Your task to perform on an android device: delete the emails in spam in the gmail app Image 0: 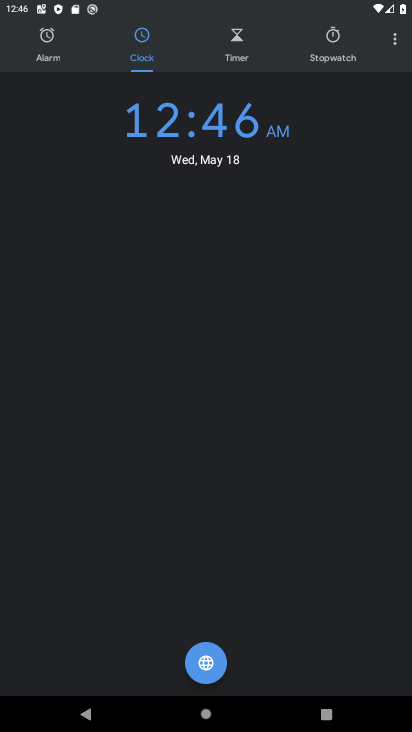
Step 0: press home button
Your task to perform on an android device: delete the emails in spam in the gmail app Image 1: 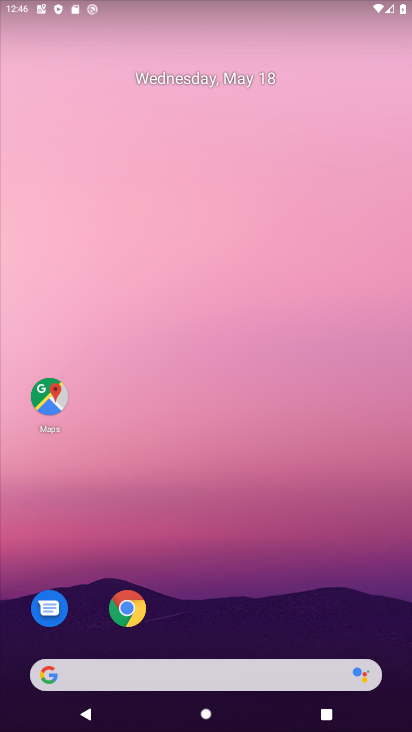
Step 1: drag from (163, 706) to (242, 190)
Your task to perform on an android device: delete the emails in spam in the gmail app Image 2: 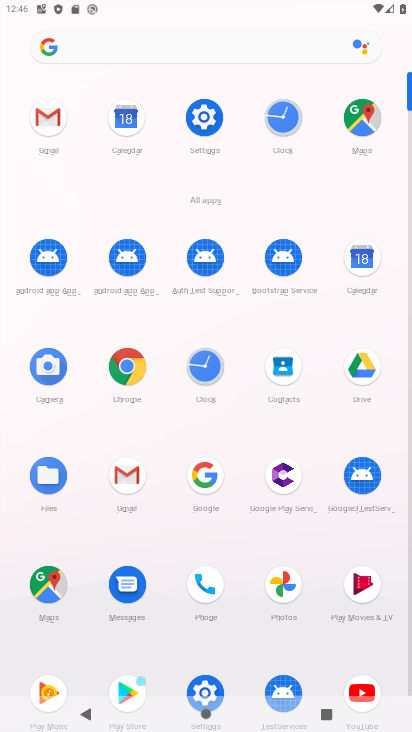
Step 2: click (51, 124)
Your task to perform on an android device: delete the emails in spam in the gmail app Image 3: 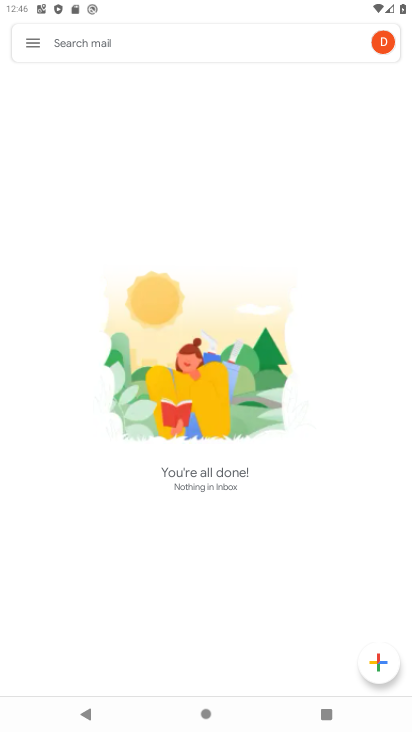
Step 3: click (35, 41)
Your task to perform on an android device: delete the emails in spam in the gmail app Image 4: 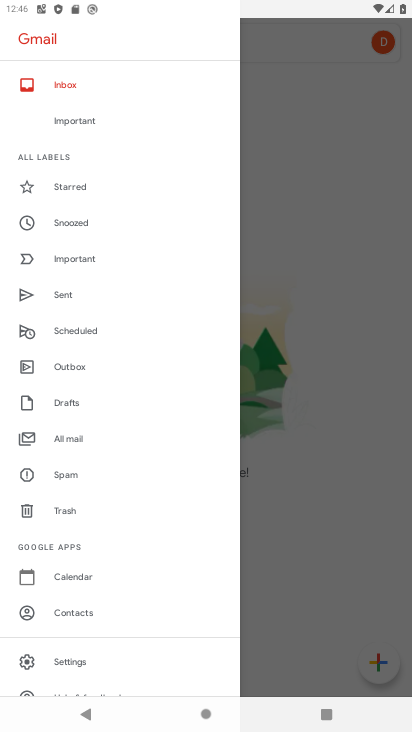
Step 4: click (77, 477)
Your task to perform on an android device: delete the emails in spam in the gmail app Image 5: 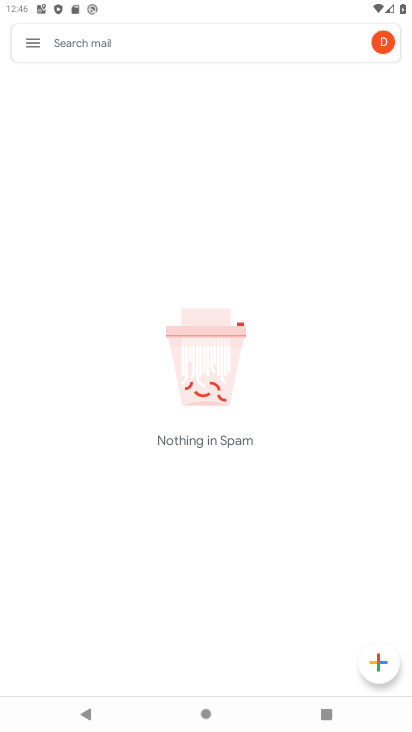
Step 5: task complete